Your task to perform on an android device: star an email in the gmail app Image 0: 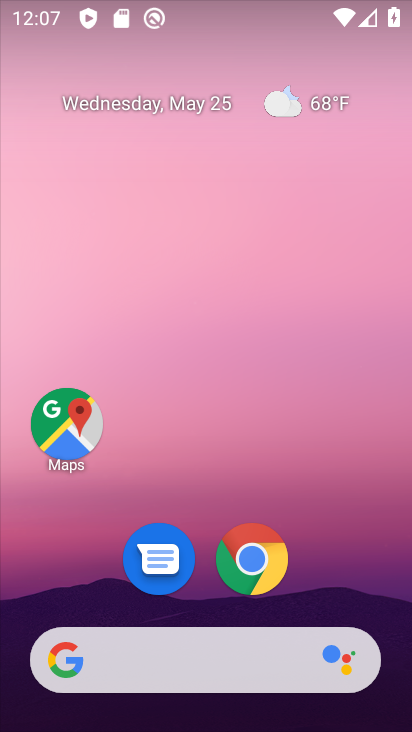
Step 0: drag from (393, 617) to (359, 143)
Your task to perform on an android device: star an email in the gmail app Image 1: 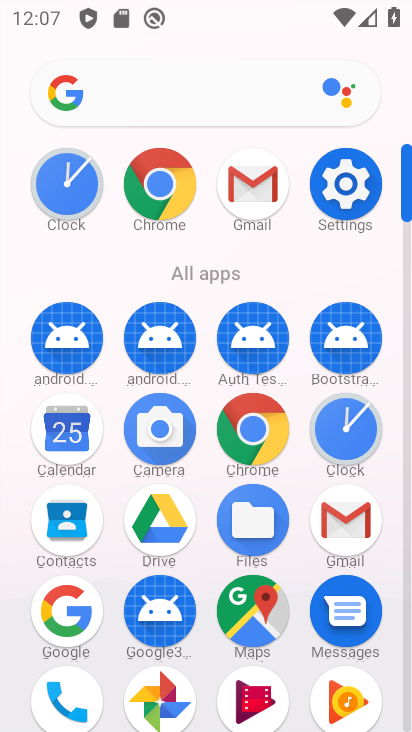
Step 1: click (406, 696)
Your task to perform on an android device: star an email in the gmail app Image 2: 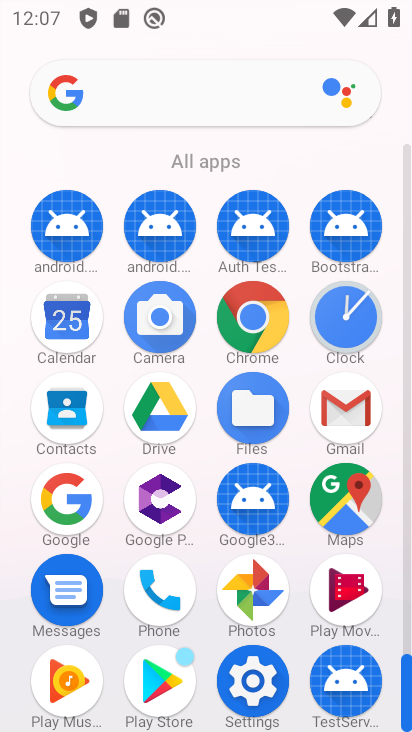
Step 2: click (344, 407)
Your task to perform on an android device: star an email in the gmail app Image 3: 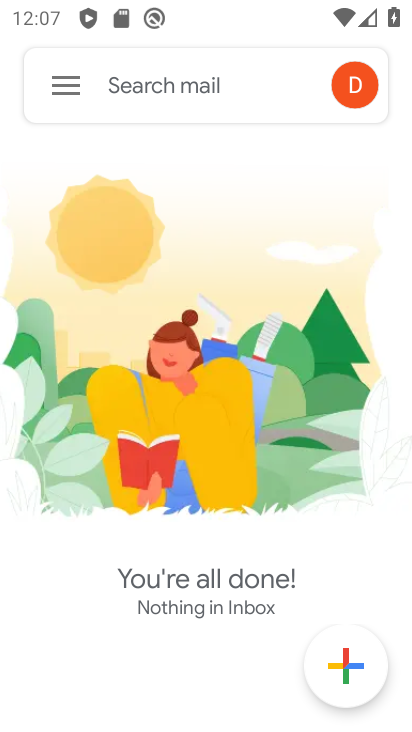
Step 3: click (65, 79)
Your task to perform on an android device: star an email in the gmail app Image 4: 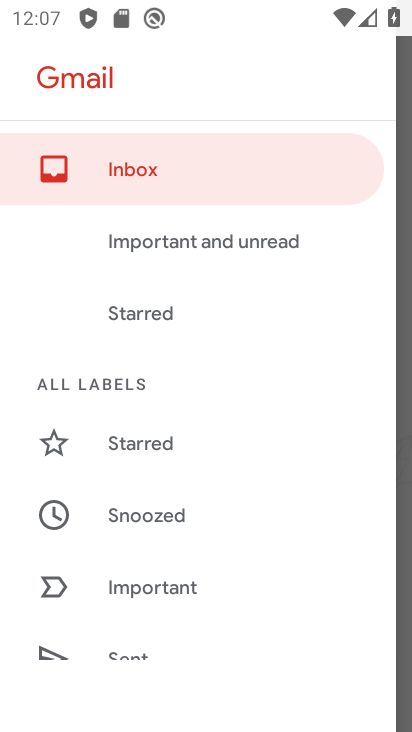
Step 4: click (162, 186)
Your task to perform on an android device: star an email in the gmail app Image 5: 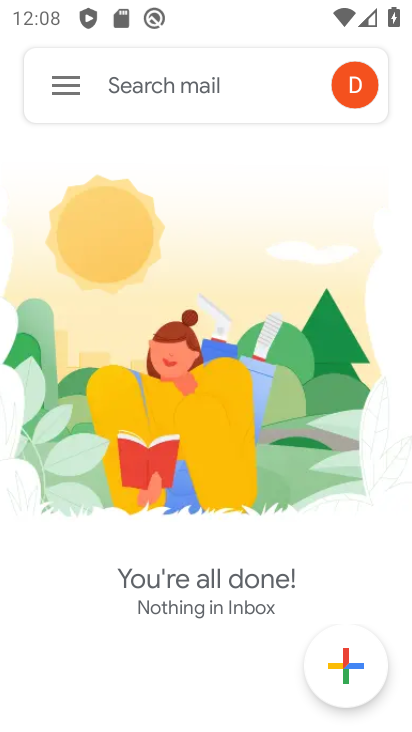
Step 5: task complete